Your task to perform on an android device: Open sound settings Image 0: 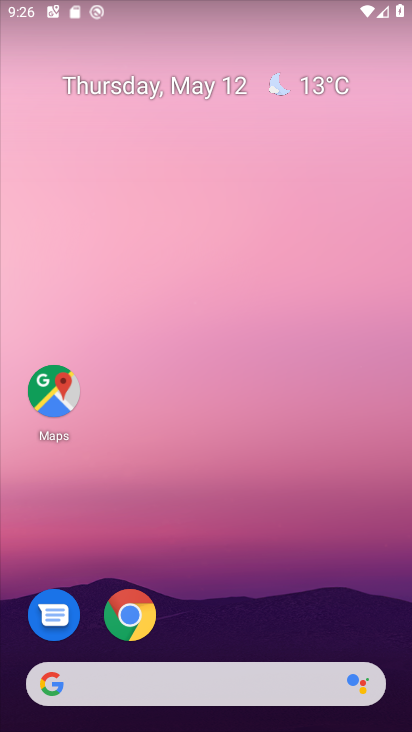
Step 0: drag from (229, 586) to (94, 156)
Your task to perform on an android device: Open sound settings Image 1: 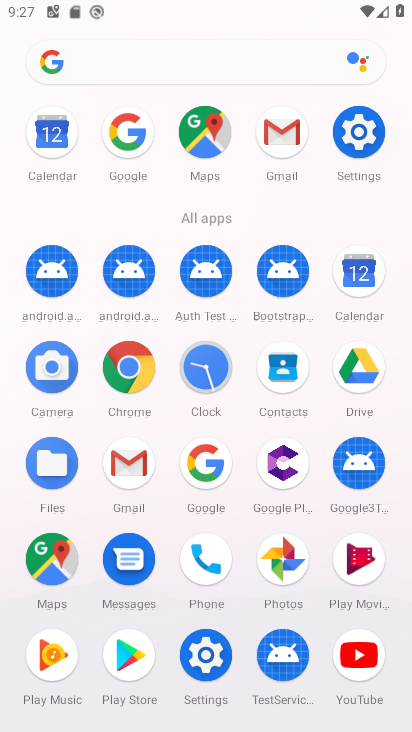
Step 1: click (359, 139)
Your task to perform on an android device: Open sound settings Image 2: 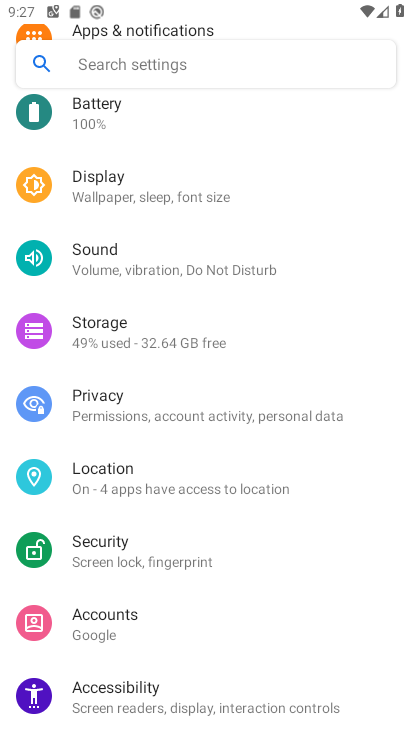
Step 2: click (96, 253)
Your task to perform on an android device: Open sound settings Image 3: 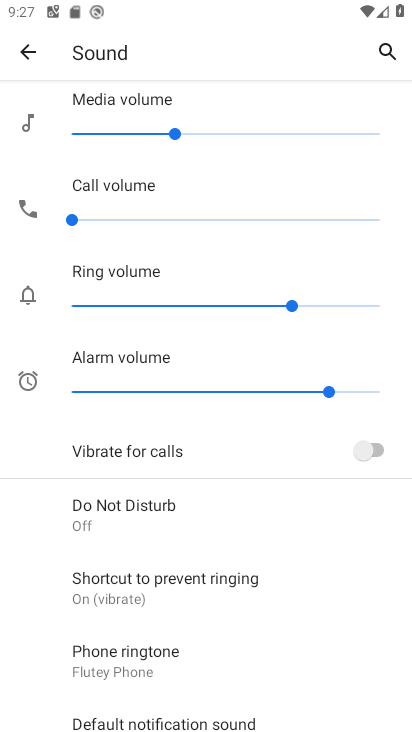
Step 3: task complete